Your task to perform on an android device: What's the weather today? Image 0: 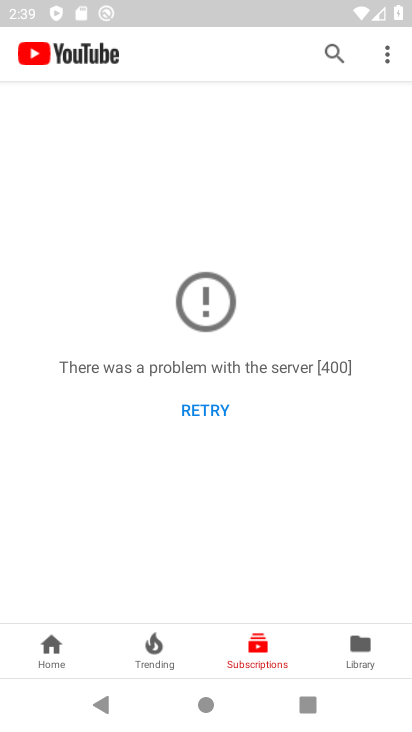
Step 0: drag from (3, 242) to (410, 223)
Your task to perform on an android device: What's the weather today? Image 1: 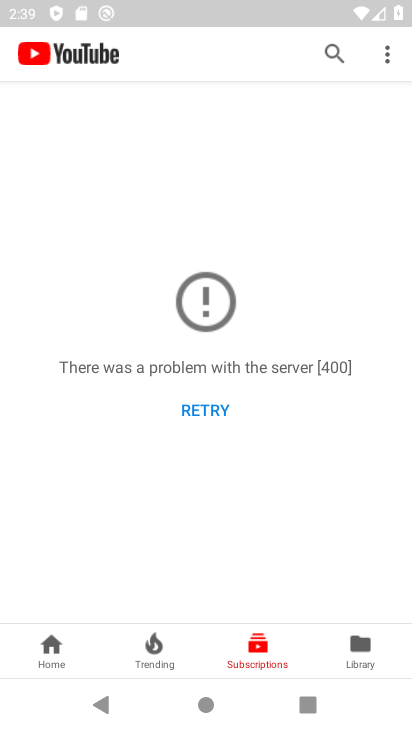
Step 1: drag from (8, 235) to (384, 248)
Your task to perform on an android device: What's the weather today? Image 2: 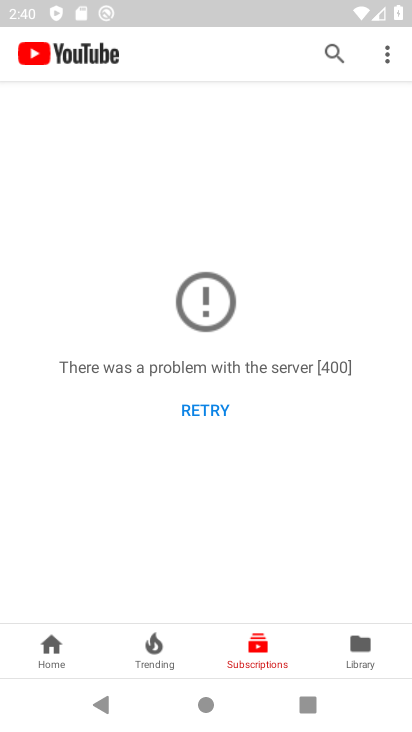
Step 2: drag from (0, 206) to (388, 200)
Your task to perform on an android device: What's the weather today? Image 3: 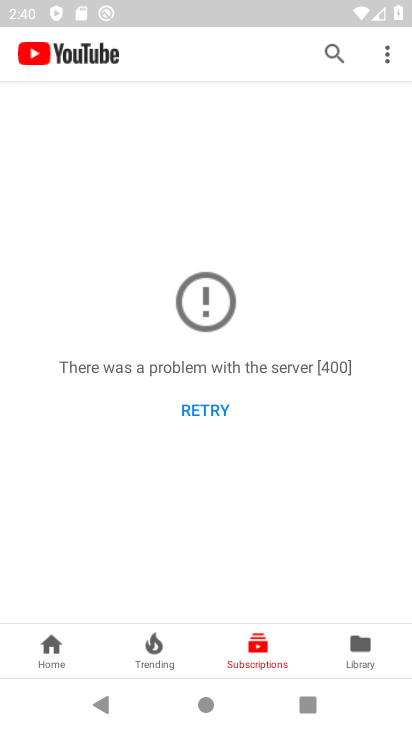
Step 3: press home button
Your task to perform on an android device: What's the weather today? Image 4: 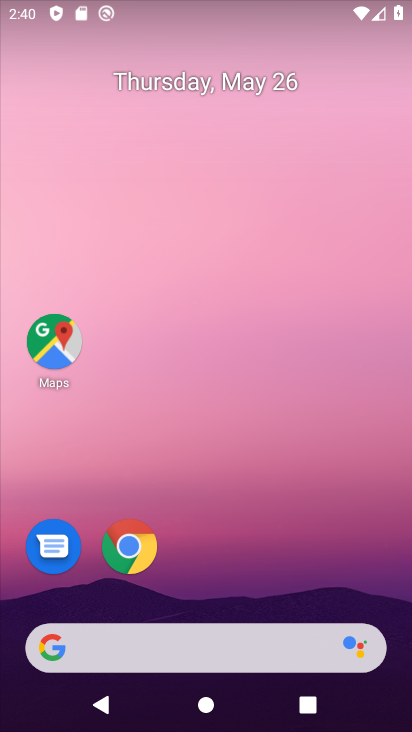
Step 4: drag from (2, 229) to (411, 243)
Your task to perform on an android device: What's the weather today? Image 5: 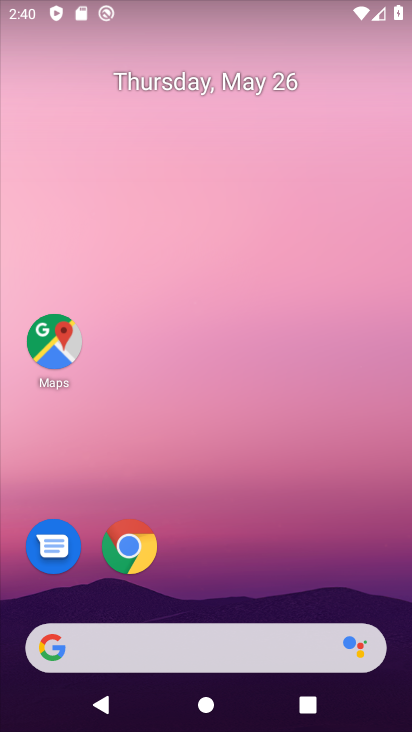
Step 5: drag from (1, 208) to (355, 221)
Your task to perform on an android device: What's the weather today? Image 6: 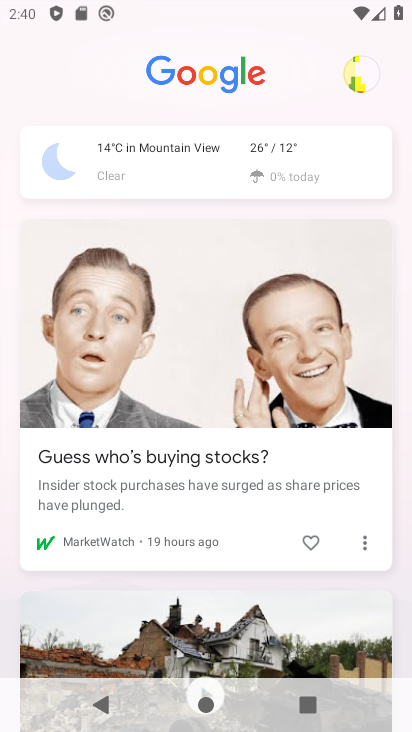
Step 6: click (273, 150)
Your task to perform on an android device: What's the weather today? Image 7: 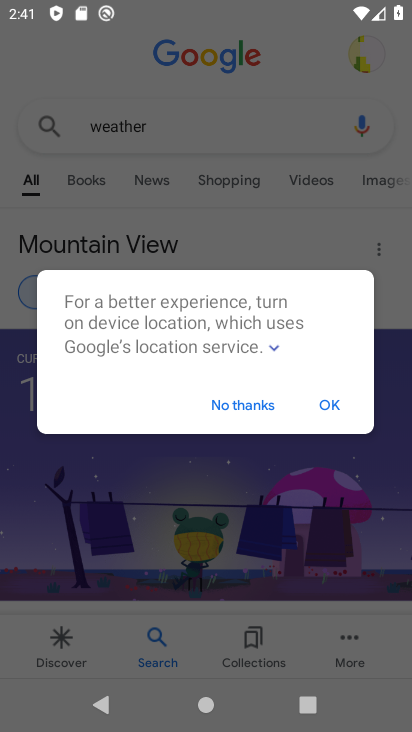
Step 7: click (314, 398)
Your task to perform on an android device: What's the weather today? Image 8: 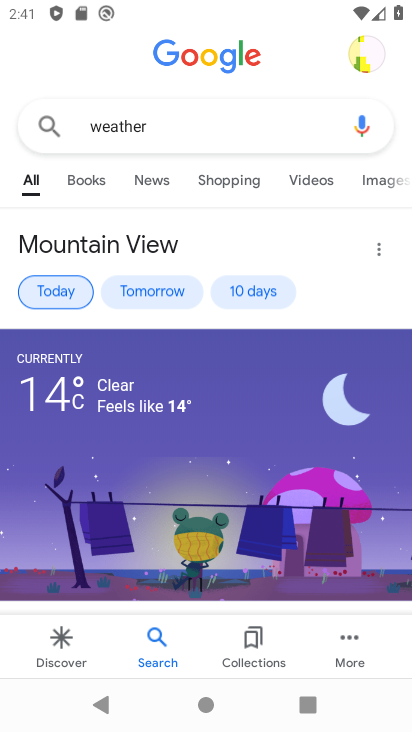
Step 8: click (48, 287)
Your task to perform on an android device: What's the weather today? Image 9: 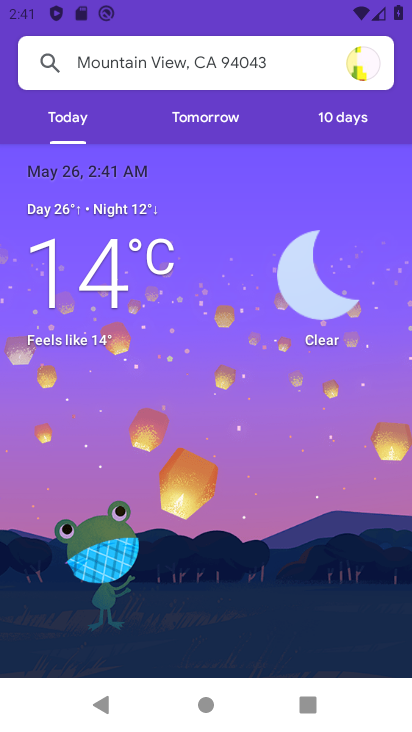
Step 9: task complete